Your task to perform on an android device: open app "Paramount+ | Peak Streaming" (install if not already installed) Image 0: 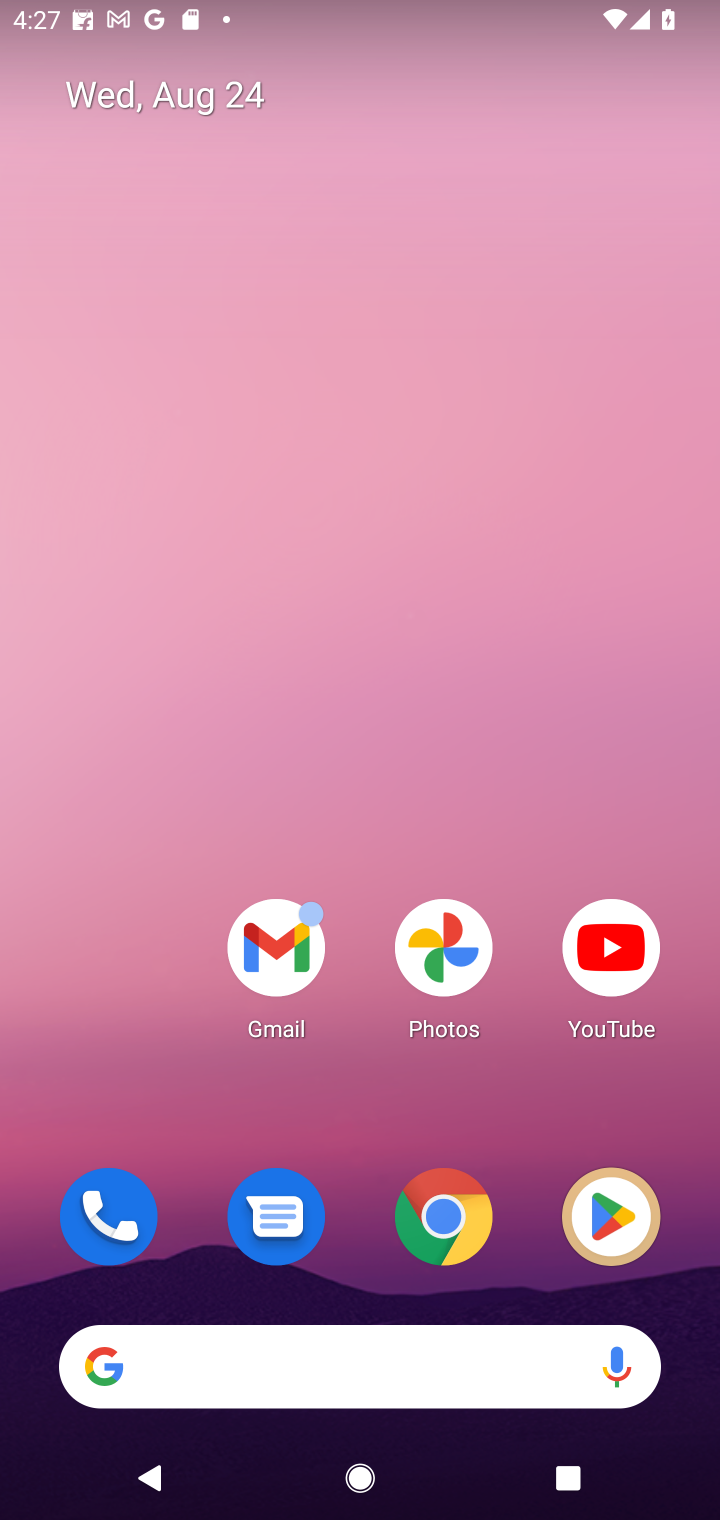
Step 0: click (587, 1197)
Your task to perform on an android device: open app "Paramount+ | Peak Streaming" (install if not already installed) Image 1: 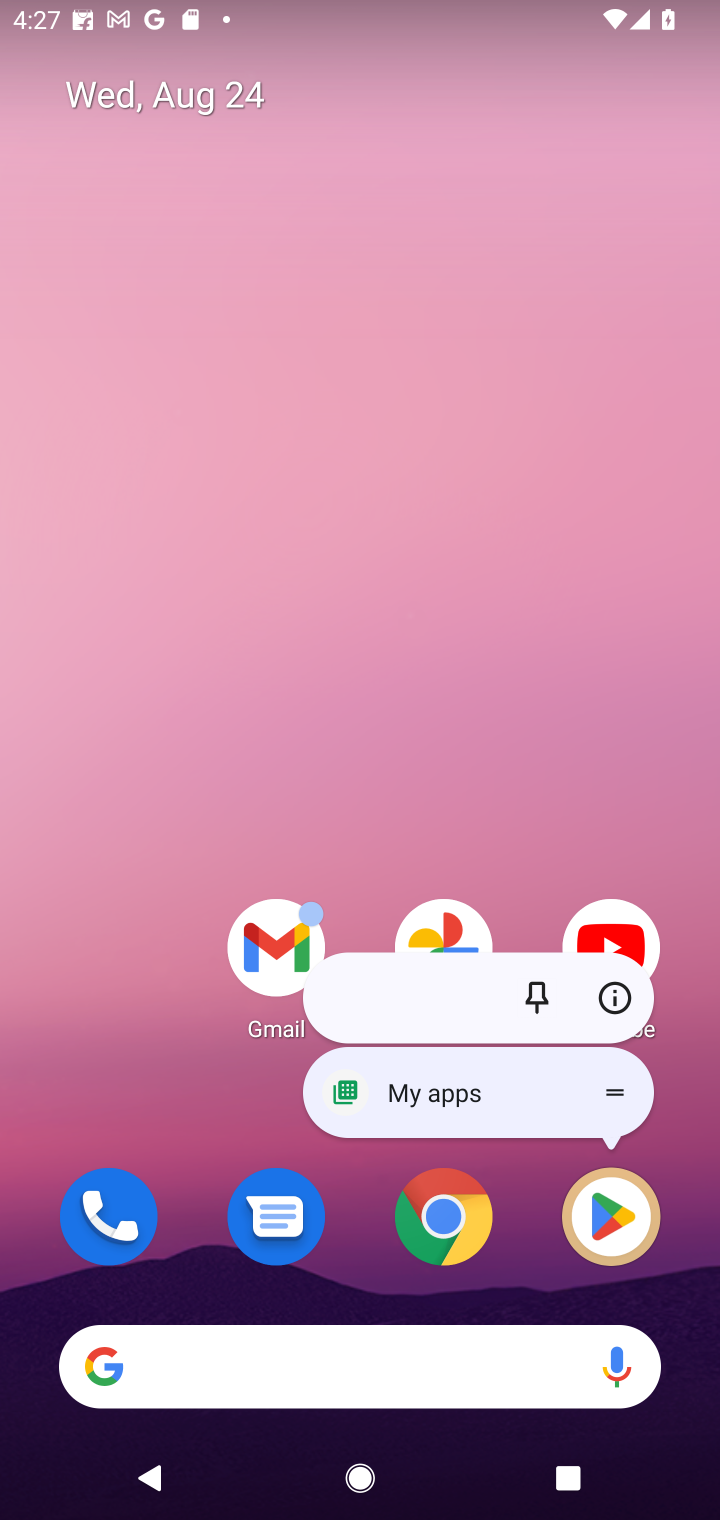
Step 1: click (596, 1190)
Your task to perform on an android device: open app "Paramount+ | Peak Streaming" (install if not already installed) Image 2: 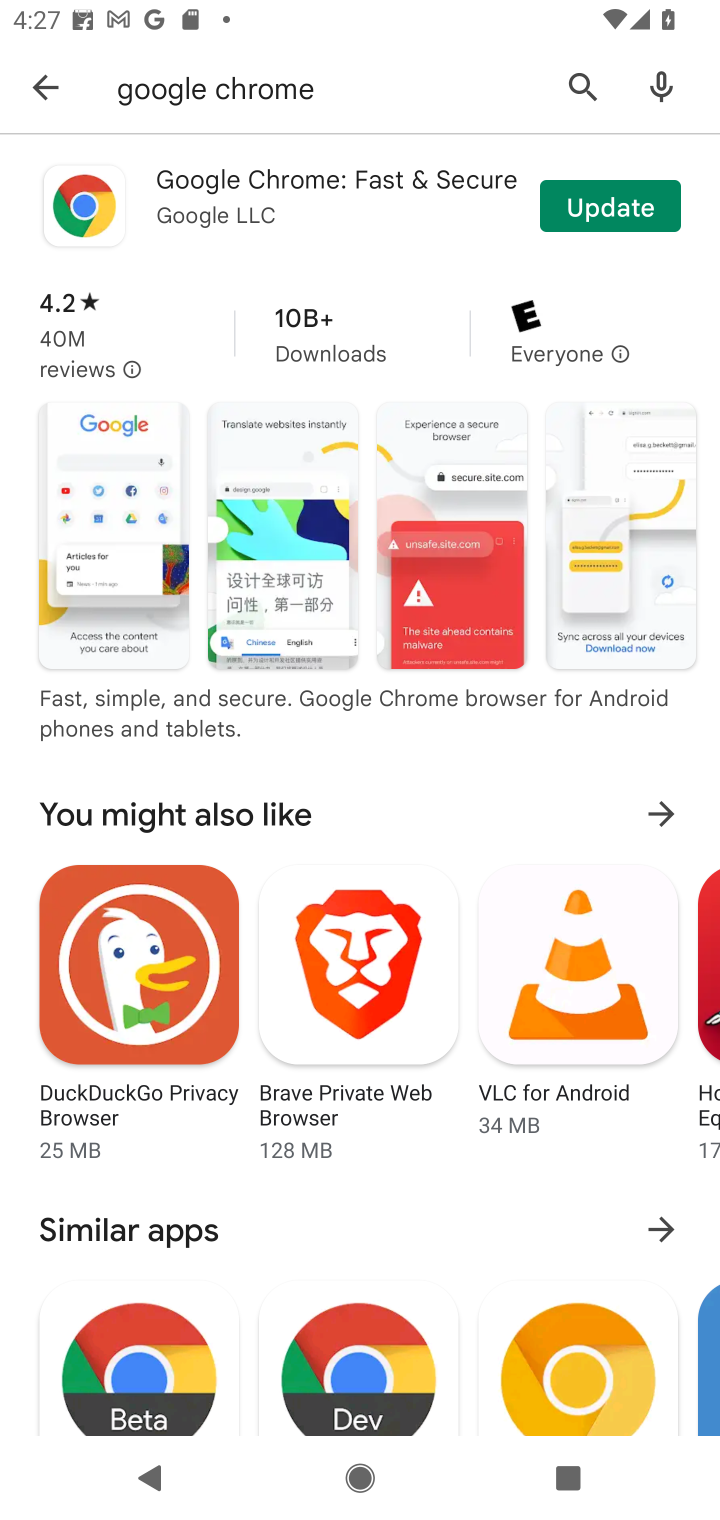
Step 2: click (567, 79)
Your task to perform on an android device: open app "Paramount+ | Peak Streaming" (install if not already installed) Image 3: 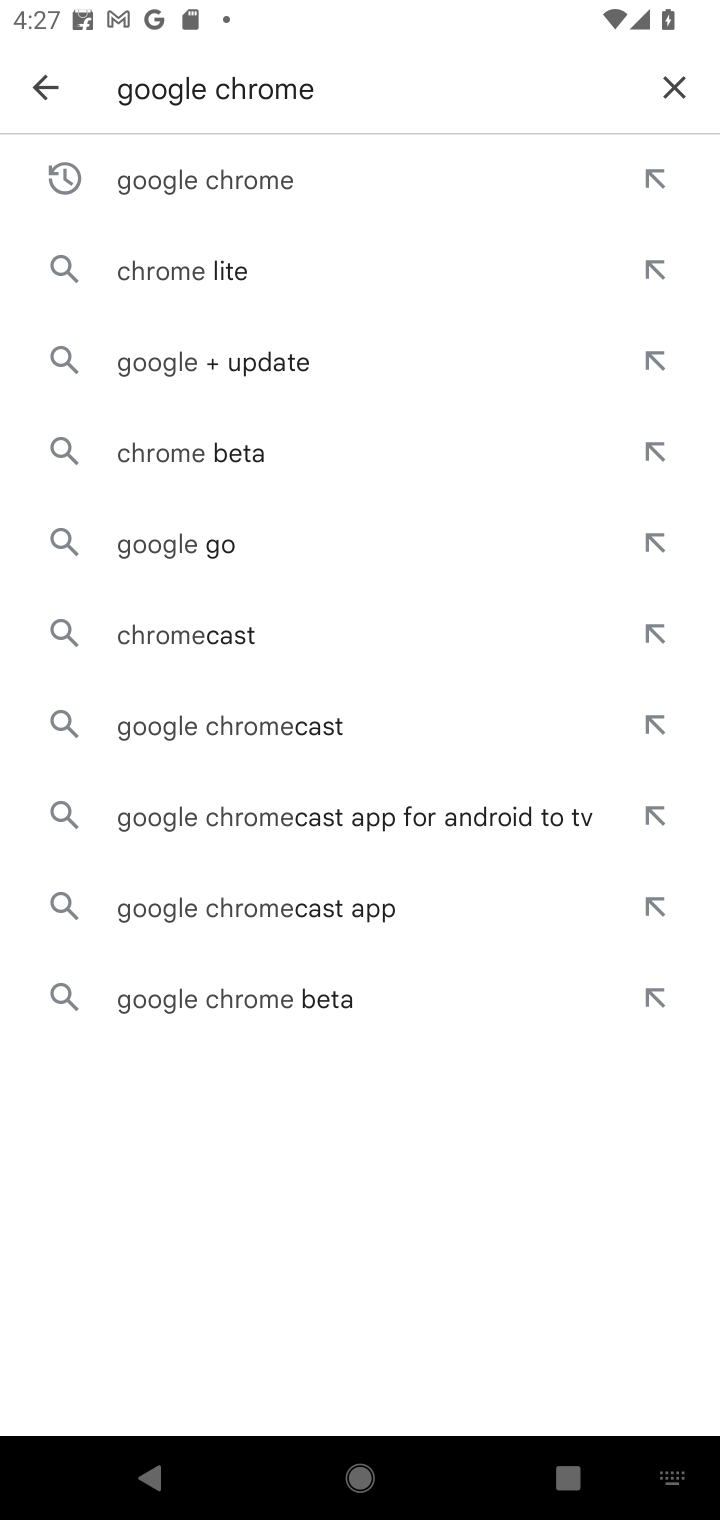
Step 3: click (655, 92)
Your task to perform on an android device: open app "Paramount+ | Peak Streaming" (install if not already installed) Image 4: 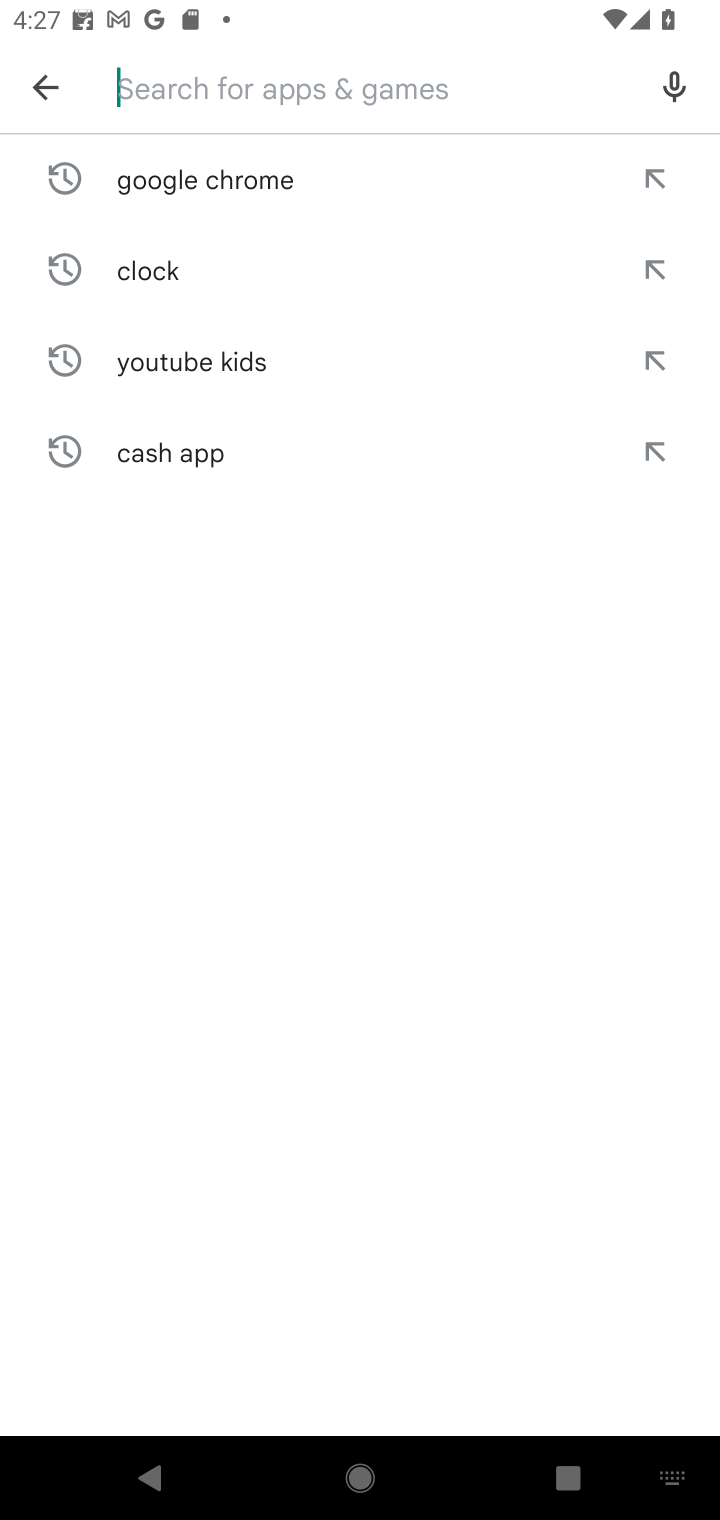
Step 4: type "Paramount+ | Peak Streaming"
Your task to perform on an android device: open app "Paramount+ | Peak Streaming" (install if not already installed) Image 5: 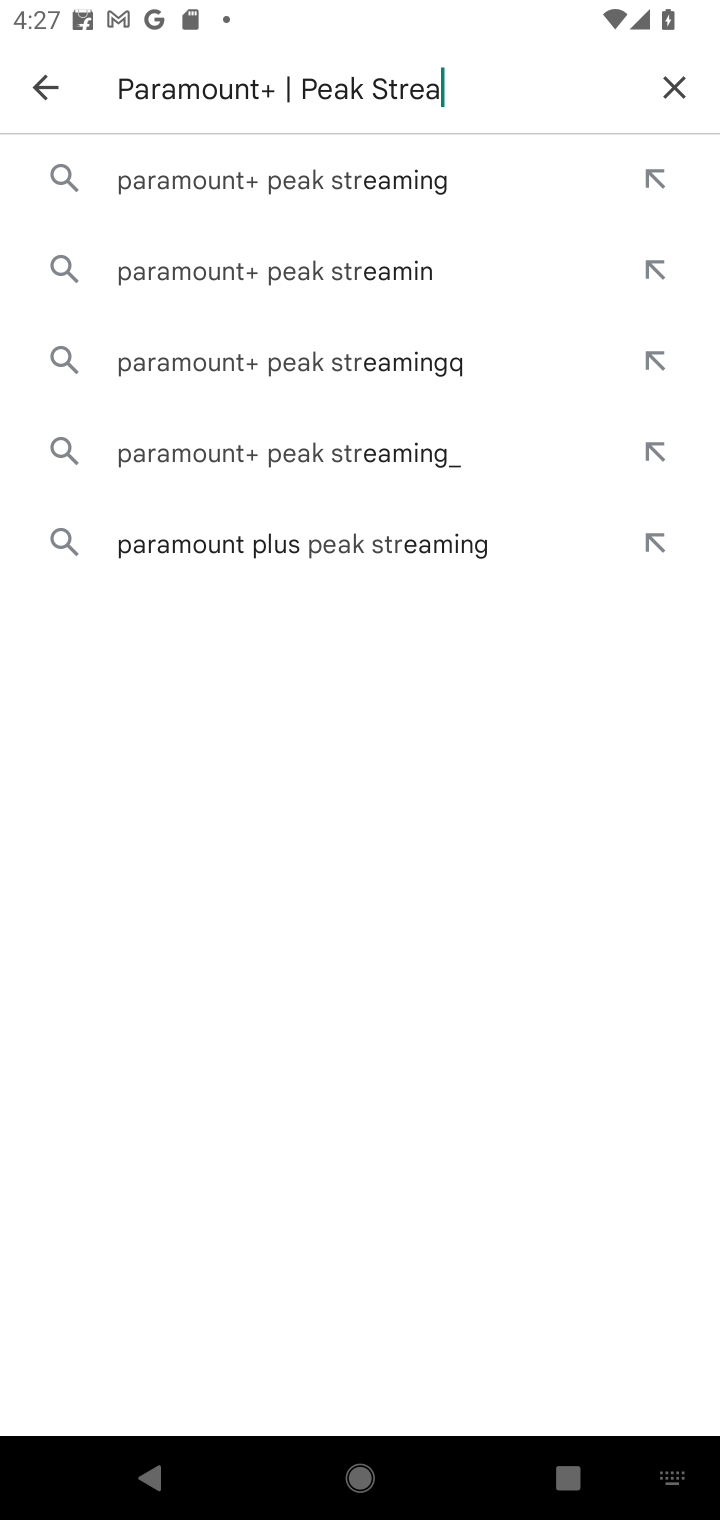
Step 5: type ""
Your task to perform on an android device: open app "Paramount+ | Peak Streaming" (install if not already installed) Image 6: 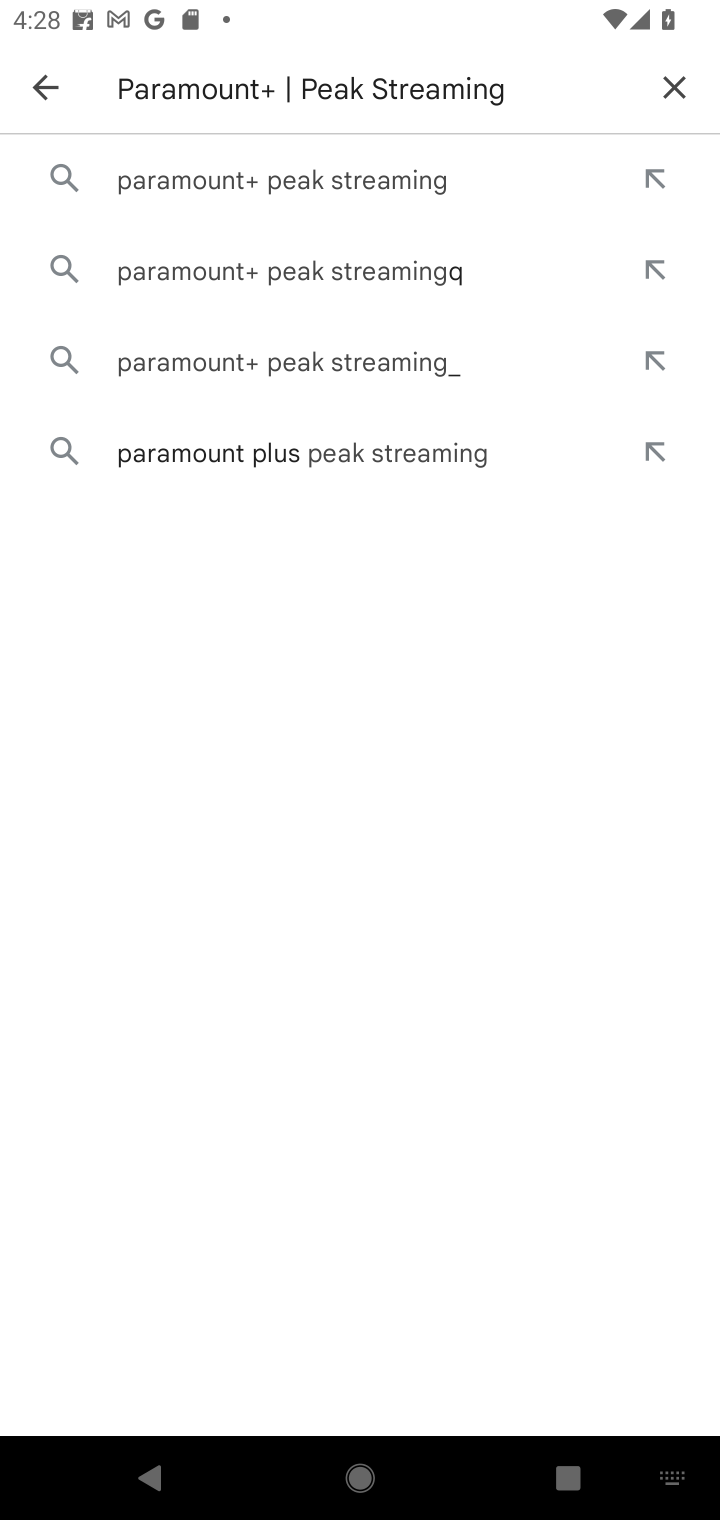
Step 6: click (280, 166)
Your task to perform on an android device: open app "Paramount+ | Peak Streaming" (install if not already installed) Image 7: 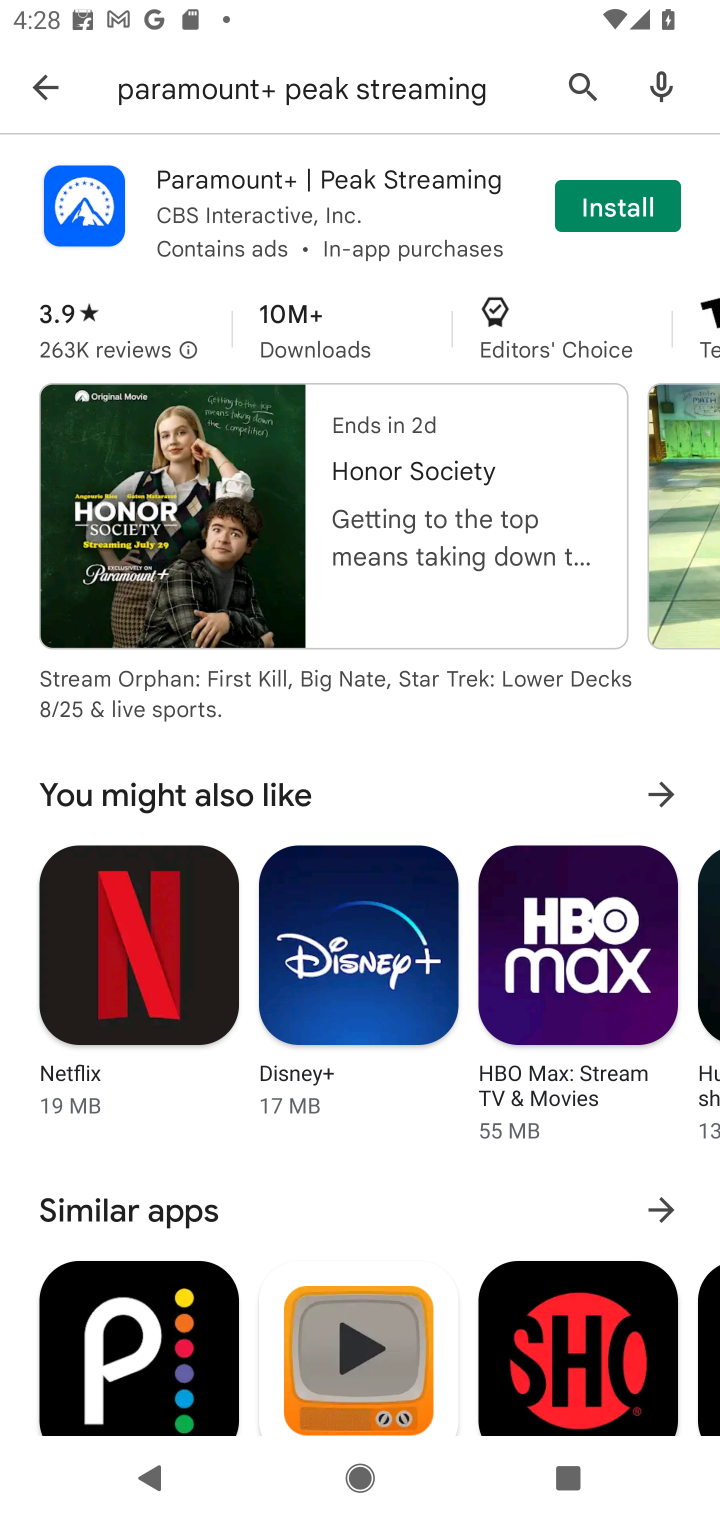
Step 7: click (599, 205)
Your task to perform on an android device: open app "Paramount+ | Peak Streaming" (install if not already installed) Image 8: 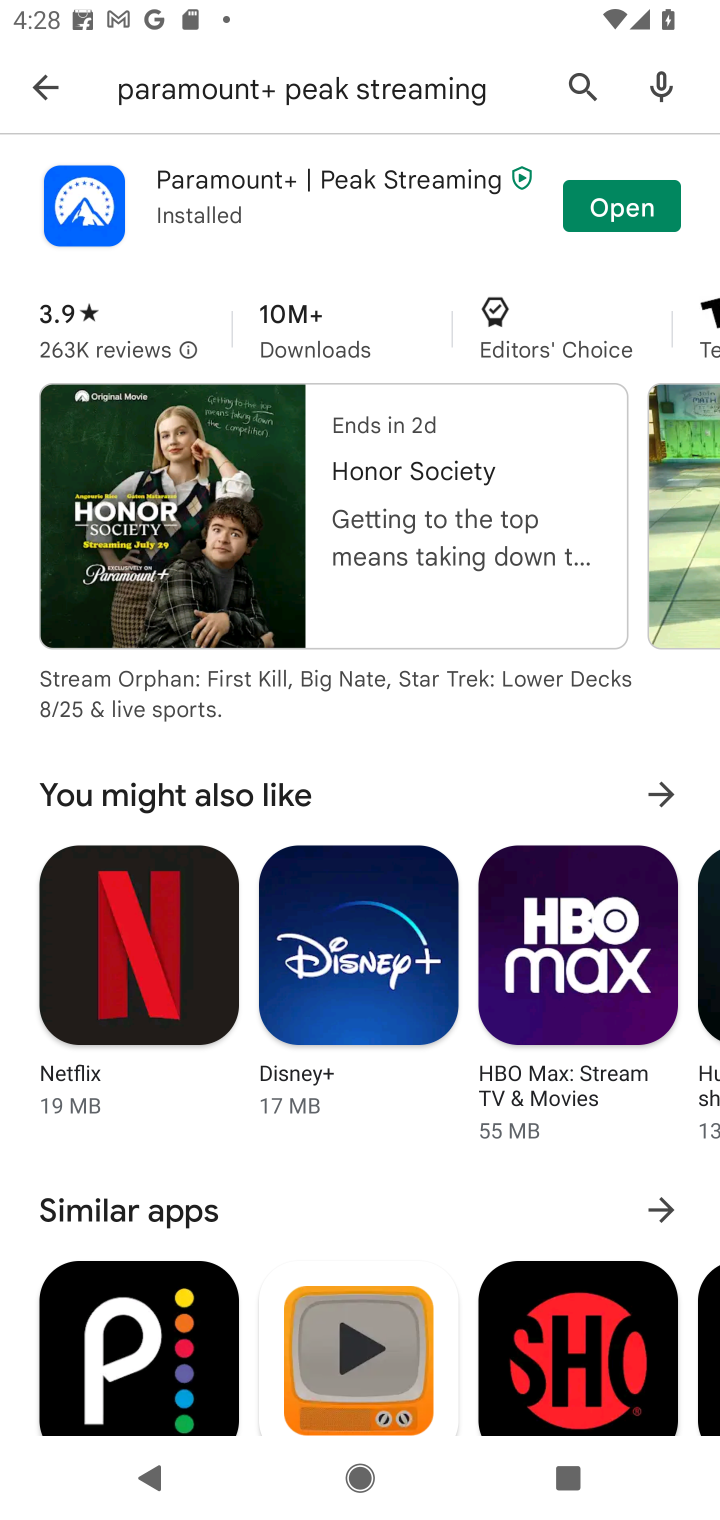
Step 8: click (591, 213)
Your task to perform on an android device: open app "Paramount+ | Peak Streaming" (install if not already installed) Image 9: 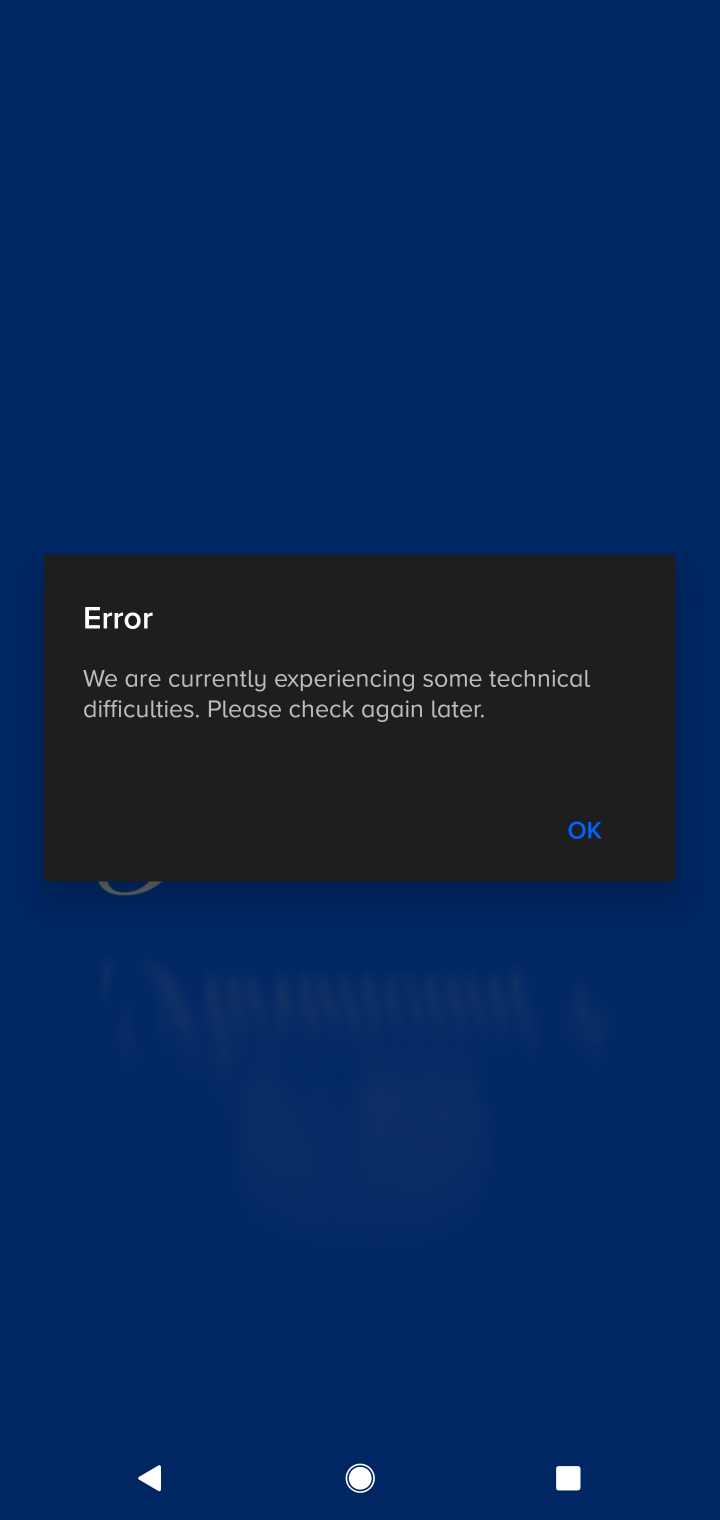
Step 9: task complete